Your task to perform on an android device: check data usage Image 0: 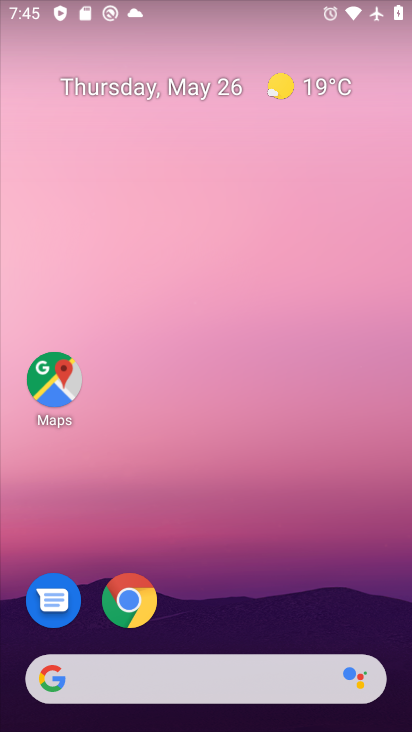
Step 0: press home button
Your task to perform on an android device: check data usage Image 1: 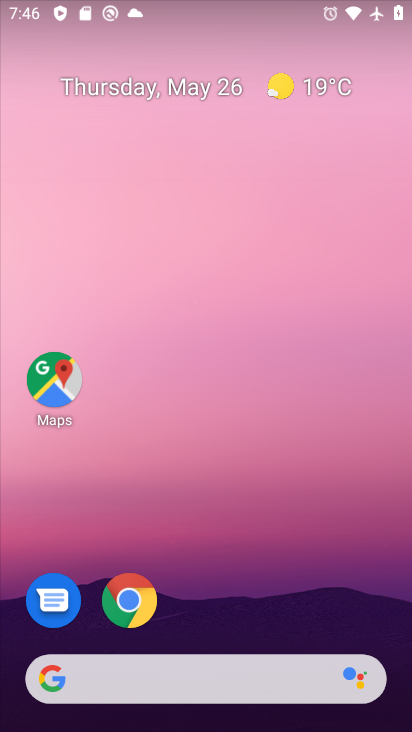
Step 1: drag from (262, 630) to (251, 241)
Your task to perform on an android device: check data usage Image 2: 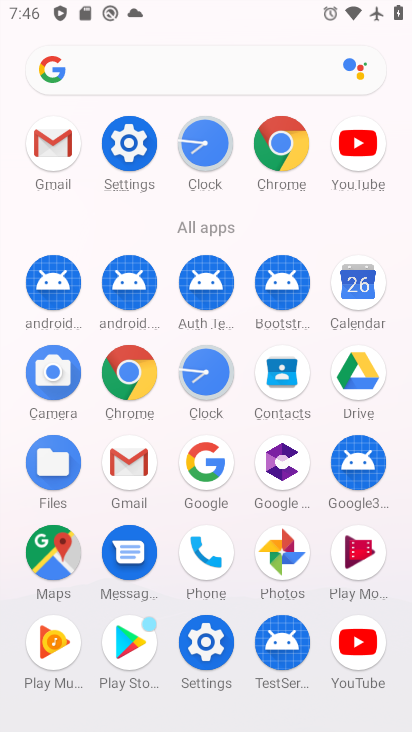
Step 2: click (132, 160)
Your task to perform on an android device: check data usage Image 3: 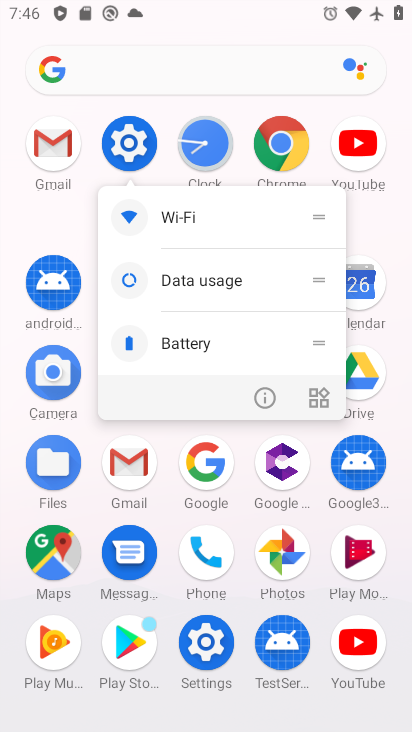
Step 3: click (134, 156)
Your task to perform on an android device: check data usage Image 4: 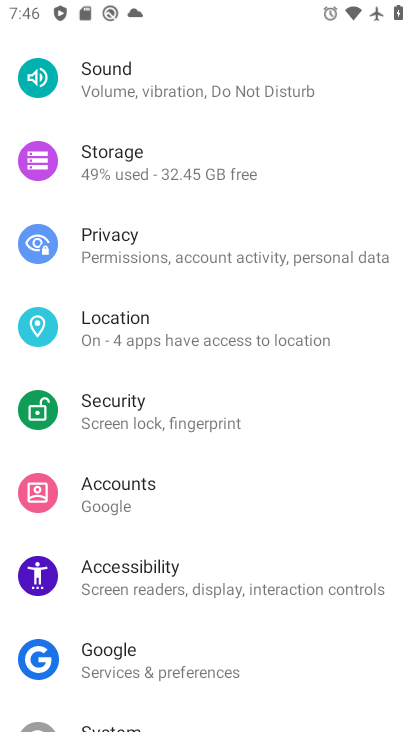
Step 4: drag from (312, 51) to (295, 502)
Your task to perform on an android device: check data usage Image 5: 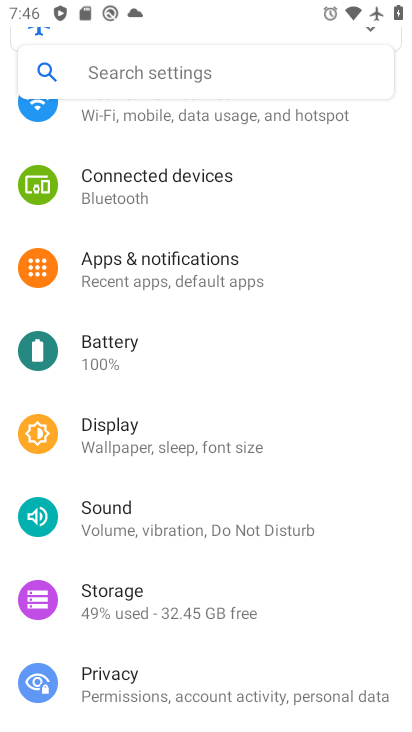
Step 5: drag from (309, 192) to (317, 558)
Your task to perform on an android device: check data usage Image 6: 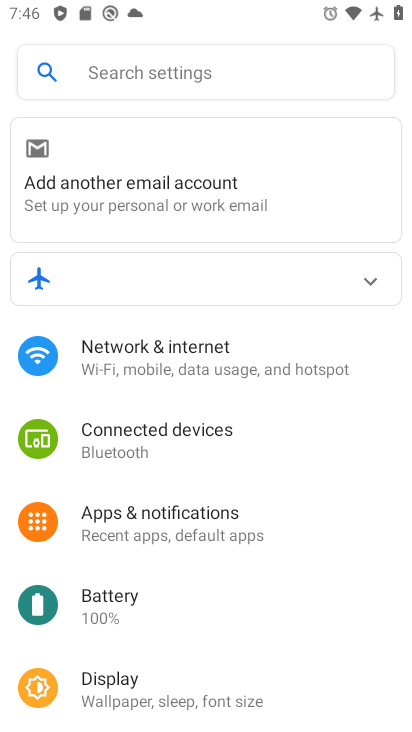
Step 6: click (148, 362)
Your task to perform on an android device: check data usage Image 7: 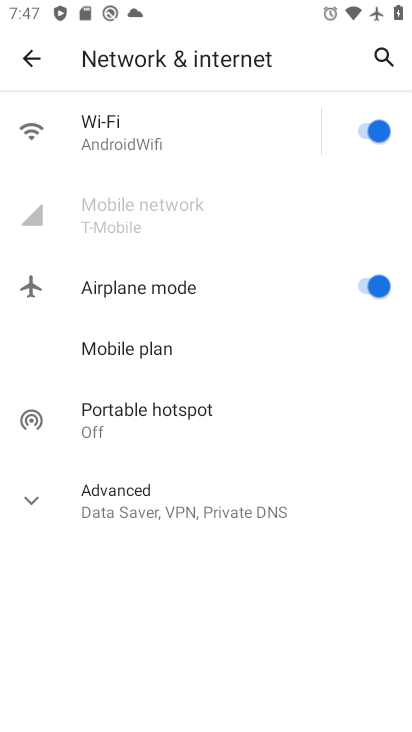
Step 7: click (378, 287)
Your task to perform on an android device: check data usage Image 8: 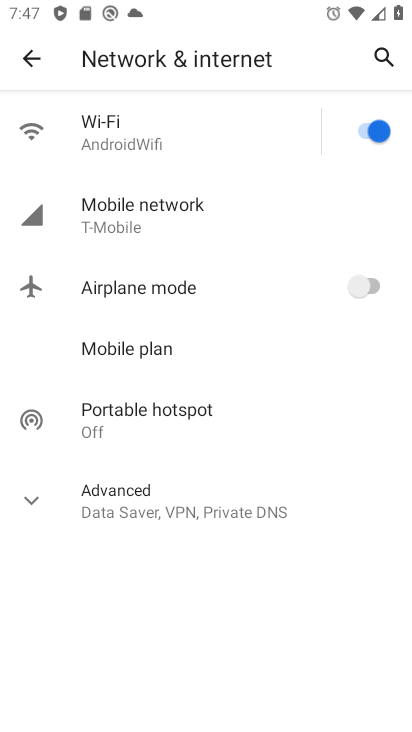
Step 8: click (129, 218)
Your task to perform on an android device: check data usage Image 9: 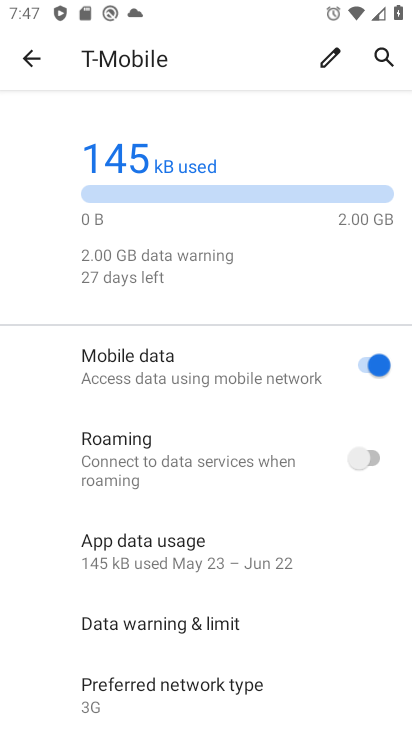
Step 9: click (160, 548)
Your task to perform on an android device: check data usage Image 10: 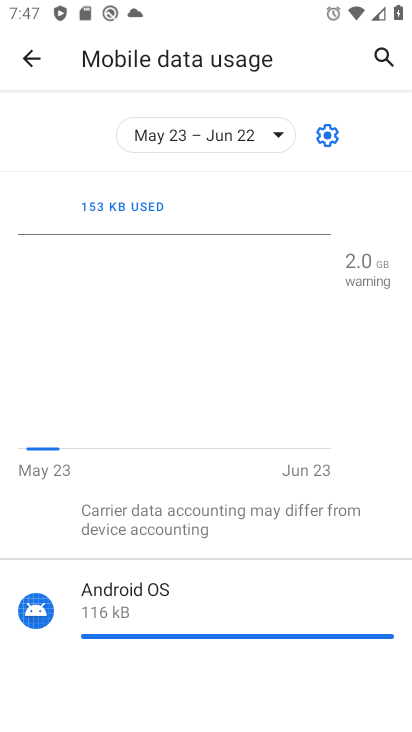
Step 10: task complete